Your task to perform on an android device: Open Chrome and go to settings Image 0: 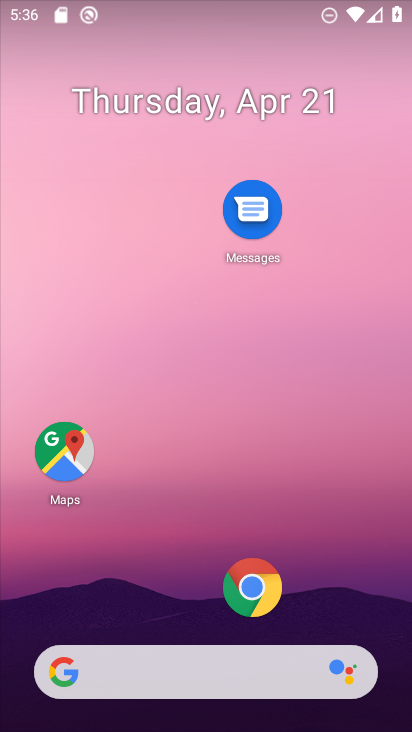
Step 0: click (254, 582)
Your task to perform on an android device: Open Chrome and go to settings Image 1: 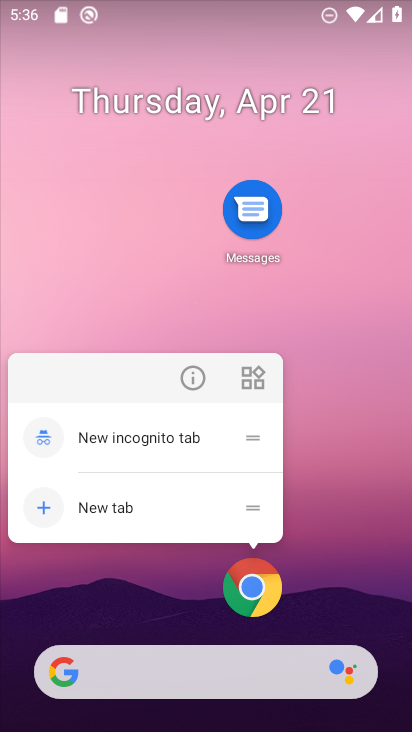
Step 1: drag from (311, 619) to (340, 68)
Your task to perform on an android device: Open Chrome and go to settings Image 2: 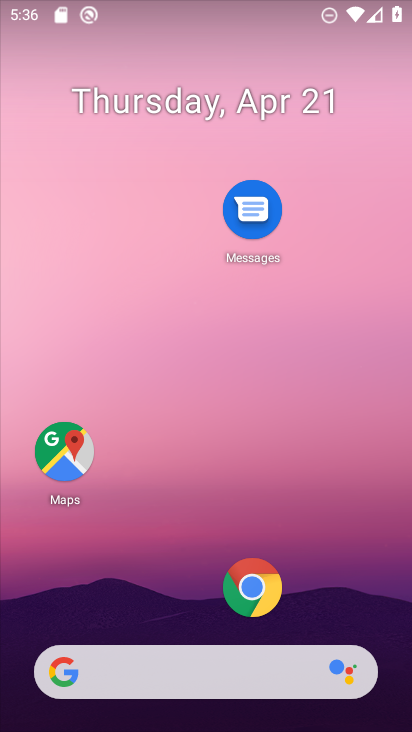
Step 2: drag from (298, 624) to (282, 102)
Your task to perform on an android device: Open Chrome and go to settings Image 3: 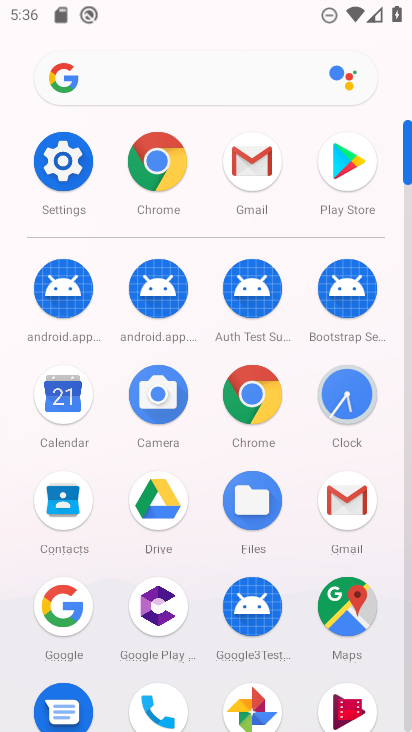
Step 3: click (249, 389)
Your task to perform on an android device: Open Chrome and go to settings Image 4: 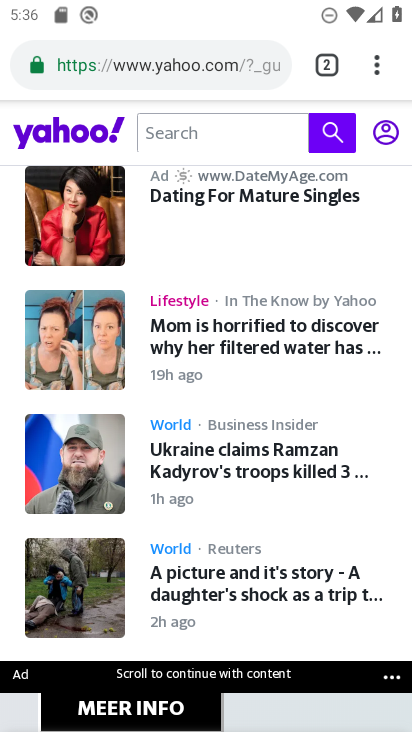
Step 4: click (370, 55)
Your task to perform on an android device: Open Chrome and go to settings Image 5: 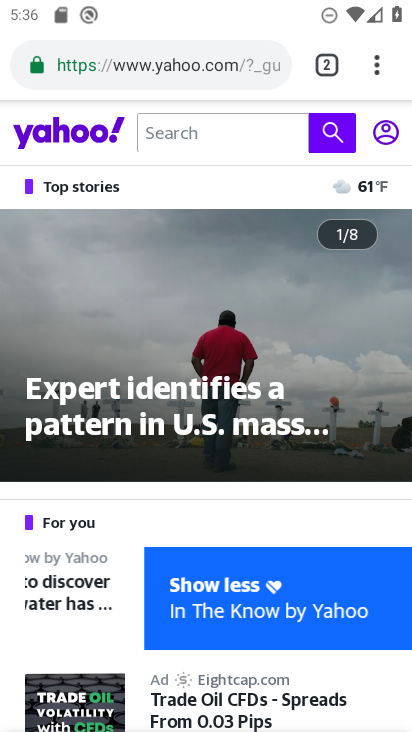
Step 5: click (375, 65)
Your task to perform on an android device: Open Chrome and go to settings Image 6: 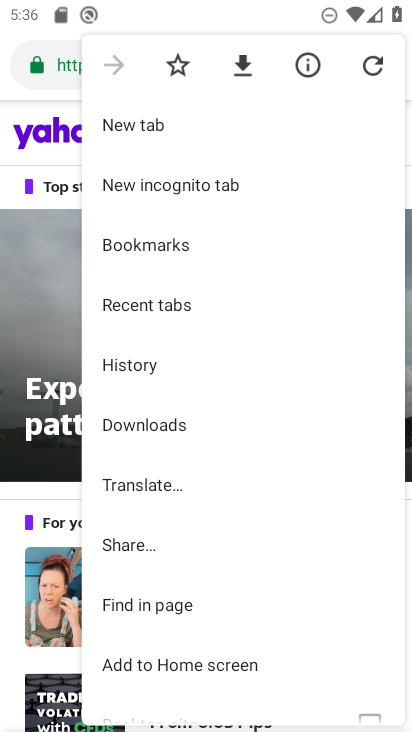
Step 6: drag from (219, 641) to (267, 141)
Your task to perform on an android device: Open Chrome and go to settings Image 7: 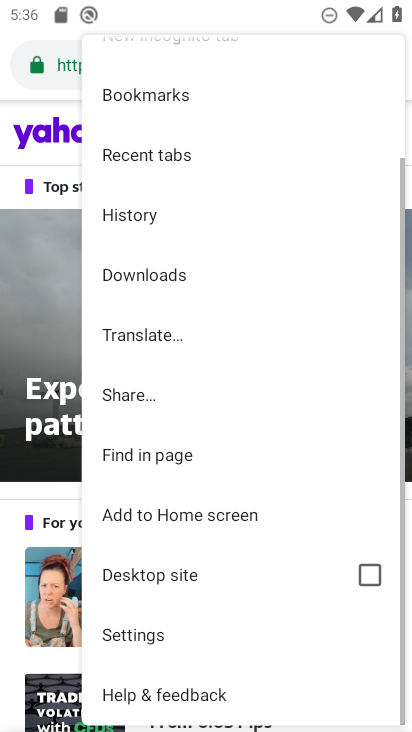
Step 7: click (175, 636)
Your task to perform on an android device: Open Chrome and go to settings Image 8: 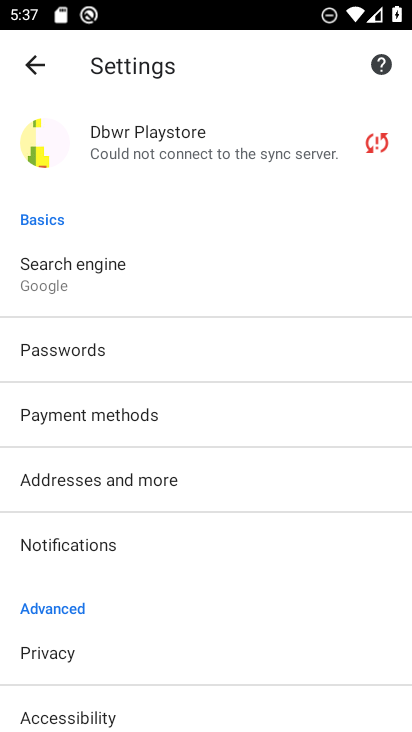
Step 8: task complete